Your task to perform on an android device: move an email to a new category in the gmail app Image 0: 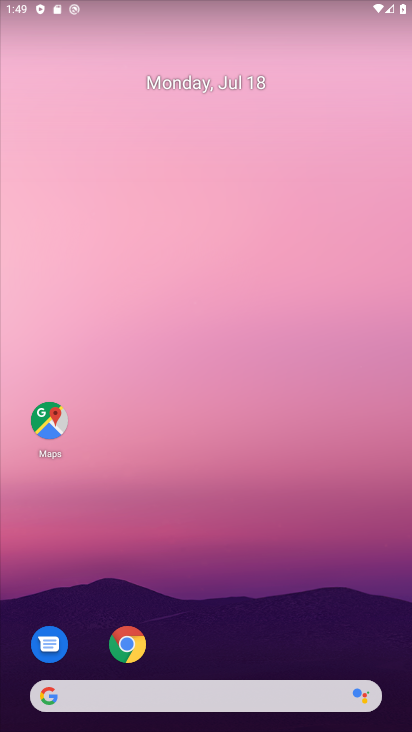
Step 0: drag from (216, 599) to (168, 270)
Your task to perform on an android device: move an email to a new category in the gmail app Image 1: 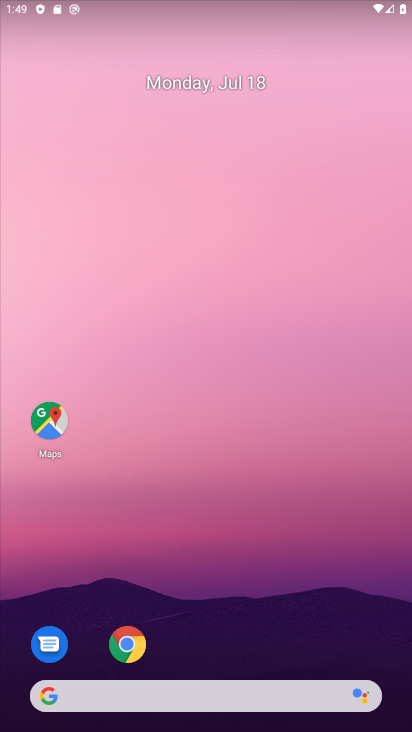
Step 1: drag from (219, 649) to (218, 88)
Your task to perform on an android device: move an email to a new category in the gmail app Image 2: 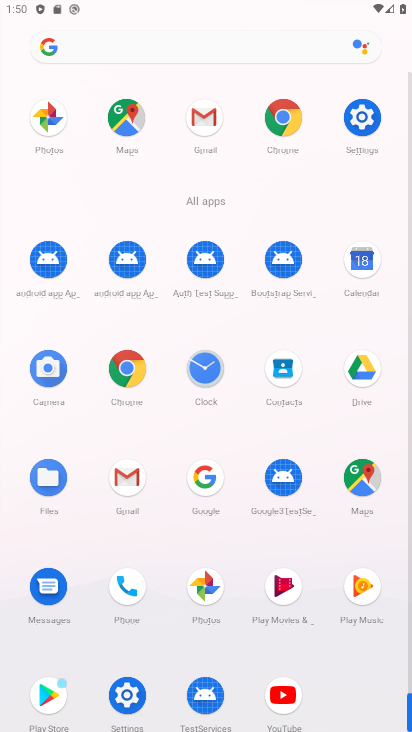
Step 2: click (136, 474)
Your task to perform on an android device: move an email to a new category in the gmail app Image 3: 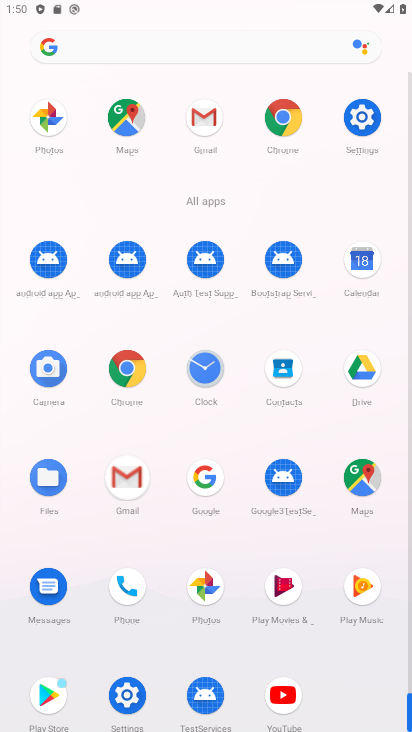
Step 3: click (136, 474)
Your task to perform on an android device: move an email to a new category in the gmail app Image 4: 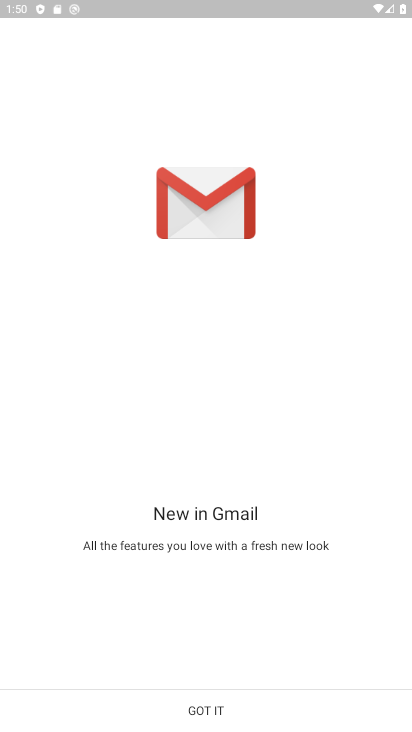
Step 4: click (212, 712)
Your task to perform on an android device: move an email to a new category in the gmail app Image 5: 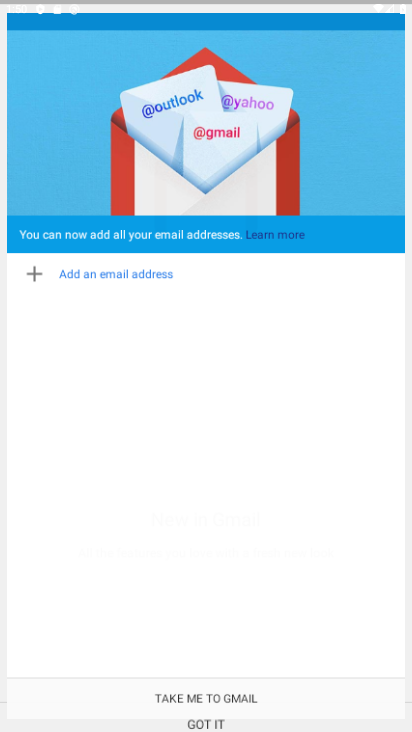
Step 5: click (208, 712)
Your task to perform on an android device: move an email to a new category in the gmail app Image 6: 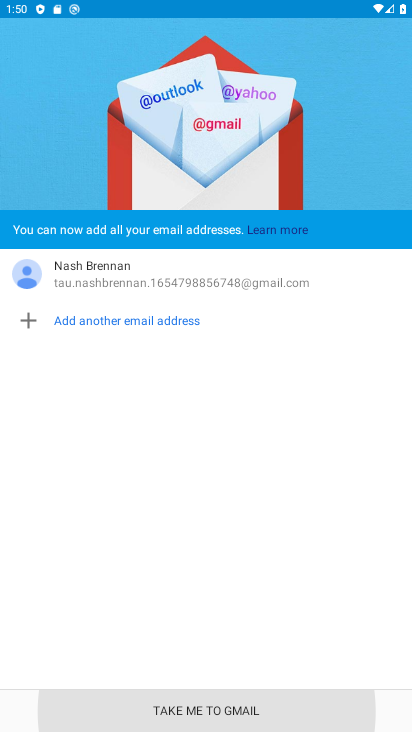
Step 6: click (208, 713)
Your task to perform on an android device: move an email to a new category in the gmail app Image 7: 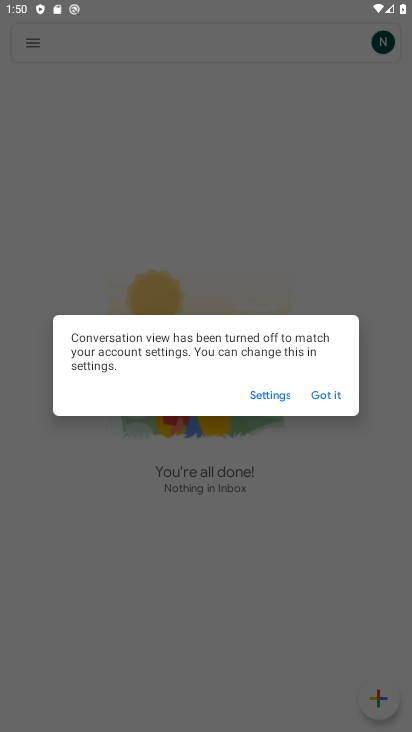
Step 7: click (321, 391)
Your task to perform on an android device: move an email to a new category in the gmail app Image 8: 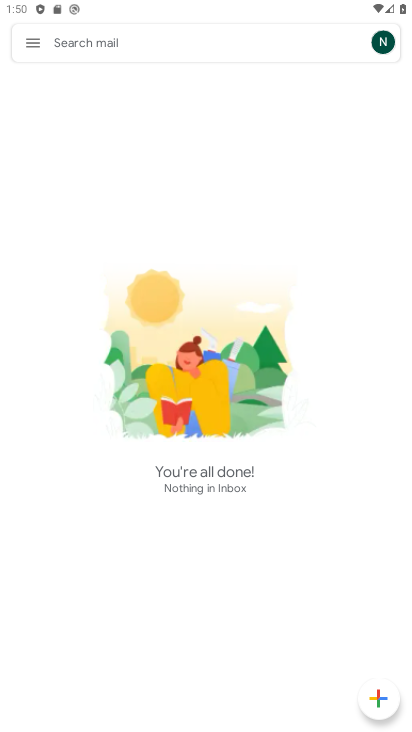
Step 8: click (28, 39)
Your task to perform on an android device: move an email to a new category in the gmail app Image 9: 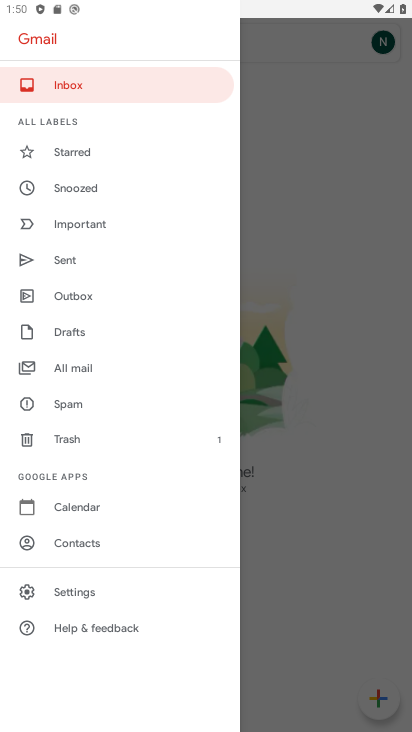
Step 9: click (51, 366)
Your task to perform on an android device: move an email to a new category in the gmail app Image 10: 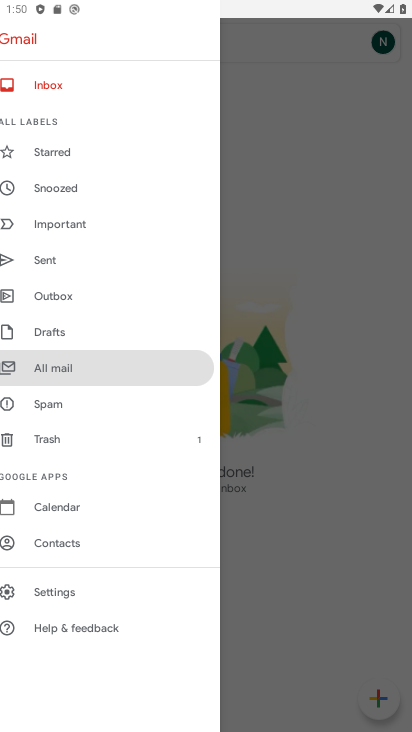
Step 10: task complete